Your task to perform on an android device: set default search engine in the chrome app Image 0: 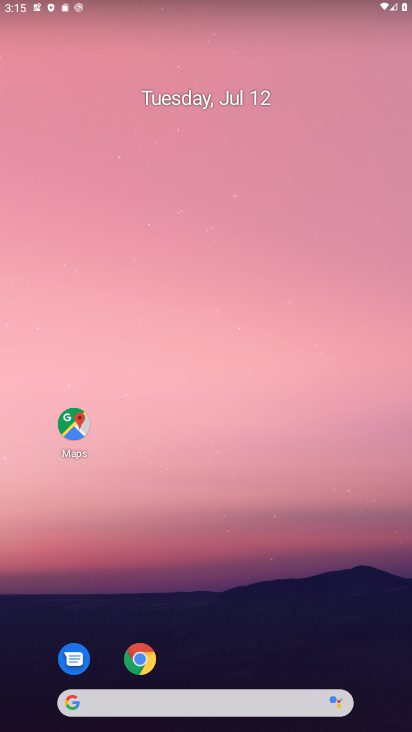
Step 0: click (143, 655)
Your task to perform on an android device: set default search engine in the chrome app Image 1: 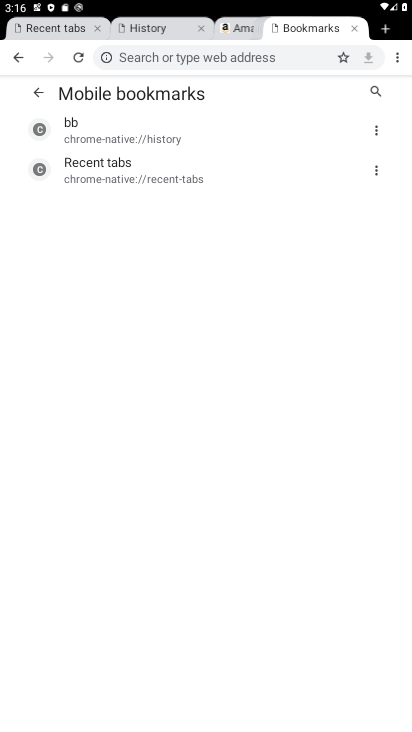
Step 1: click (398, 59)
Your task to perform on an android device: set default search engine in the chrome app Image 2: 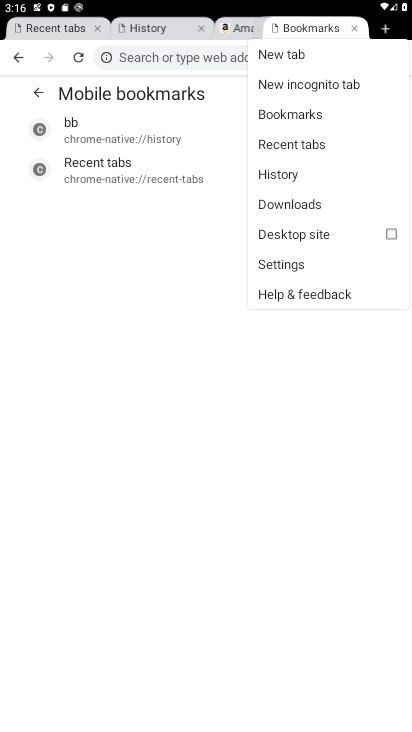
Step 2: click (281, 257)
Your task to perform on an android device: set default search engine in the chrome app Image 3: 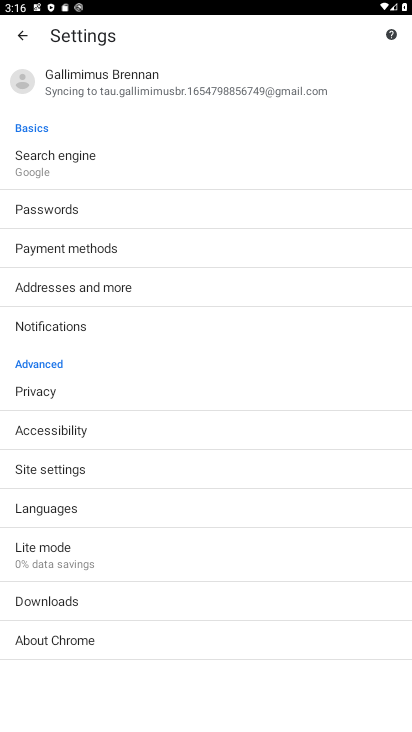
Step 3: click (48, 159)
Your task to perform on an android device: set default search engine in the chrome app Image 4: 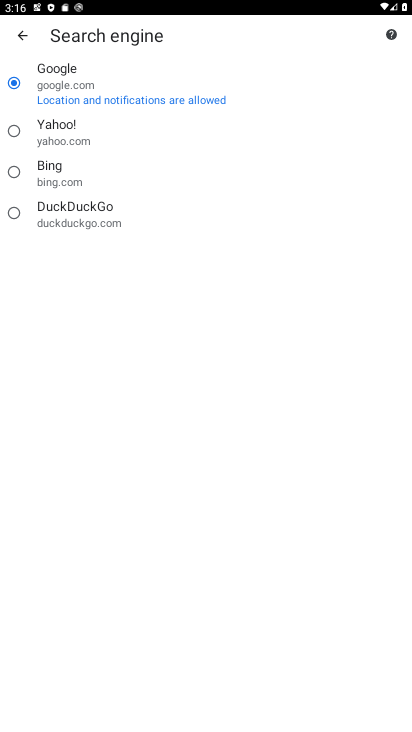
Step 4: click (12, 134)
Your task to perform on an android device: set default search engine in the chrome app Image 5: 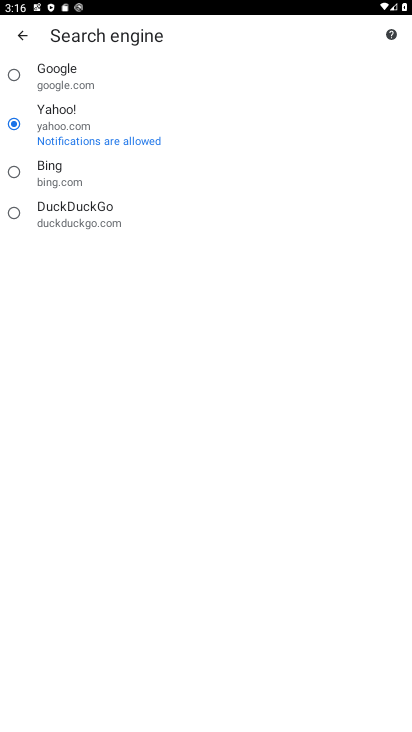
Step 5: task complete